Your task to perform on an android device: turn on airplane mode Image 0: 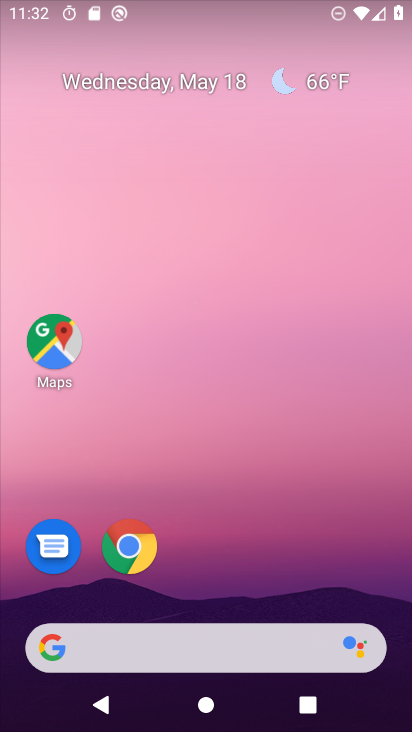
Step 0: drag from (263, 13) to (233, 483)
Your task to perform on an android device: turn on airplane mode Image 1: 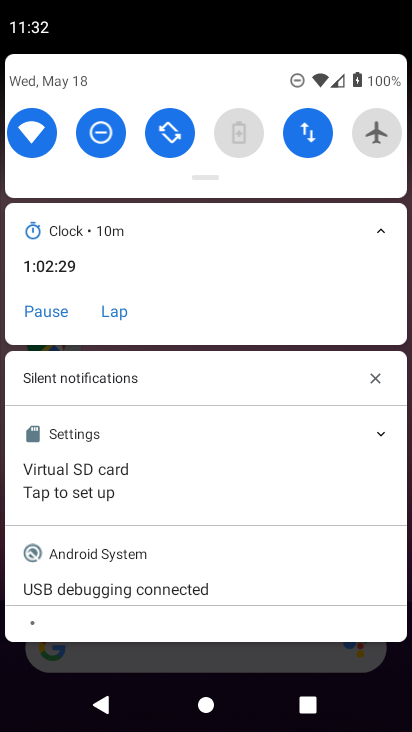
Step 1: click (384, 128)
Your task to perform on an android device: turn on airplane mode Image 2: 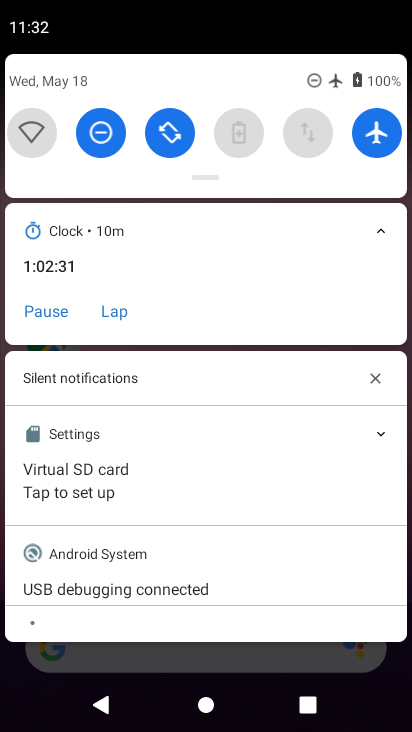
Step 2: task complete